Your task to perform on an android device: remove spam from my inbox in the gmail app Image 0: 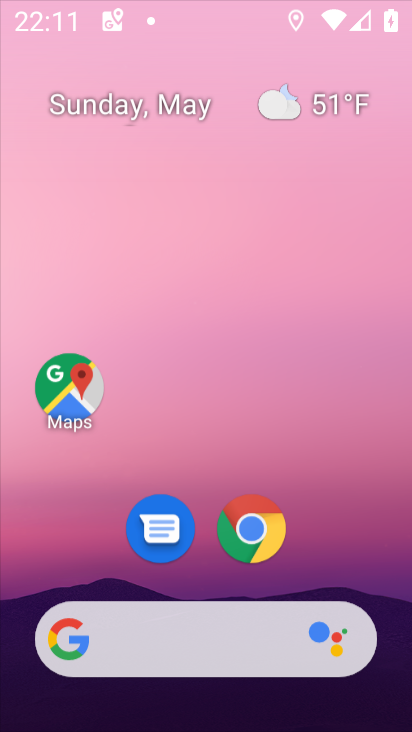
Step 0: click (272, 198)
Your task to perform on an android device: remove spam from my inbox in the gmail app Image 1: 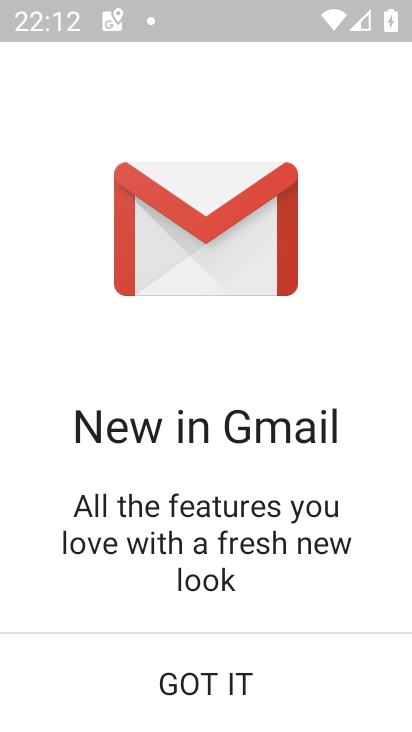
Step 1: click (207, 713)
Your task to perform on an android device: remove spam from my inbox in the gmail app Image 2: 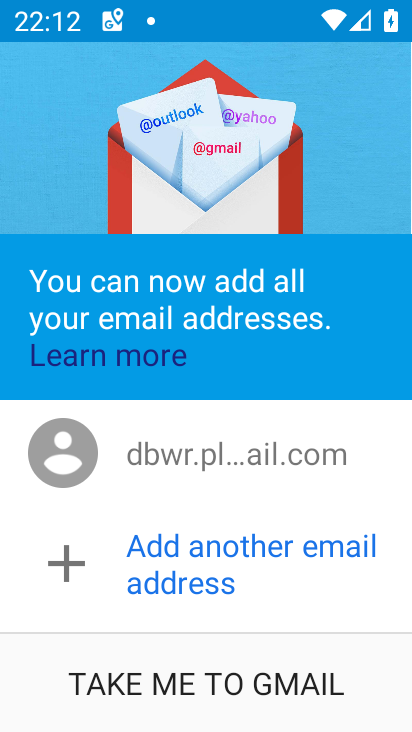
Step 2: click (238, 682)
Your task to perform on an android device: remove spam from my inbox in the gmail app Image 3: 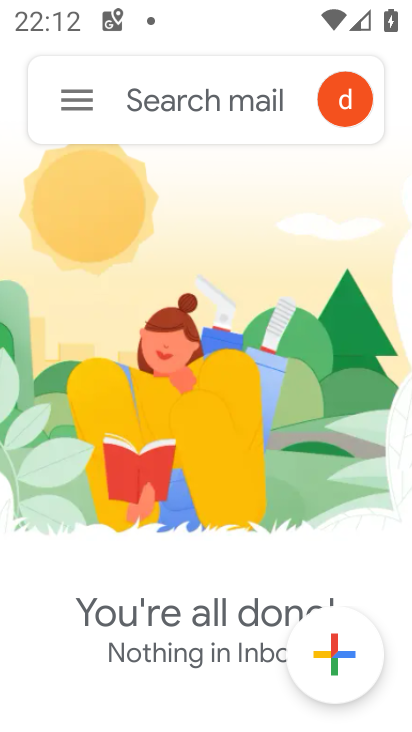
Step 3: click (93, 85)
Your task to perform on an android device: remove spam from my inbox in the gmail app Image 4: 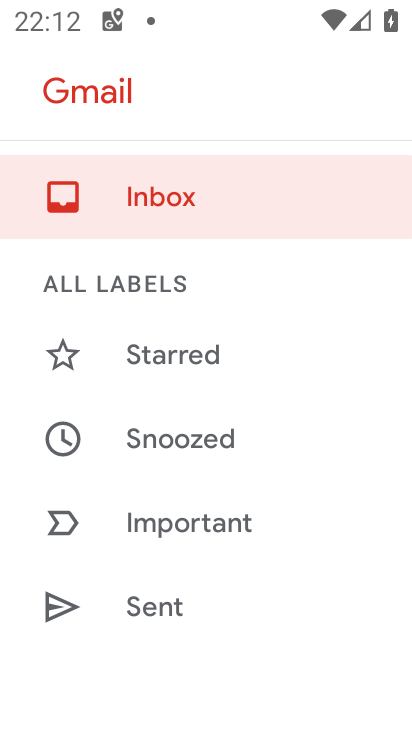
Step 4: drag from (142, 619) to (160, 211)
Your task to perform on an android device: remove spam from my inbox in the gmail app Image 5: 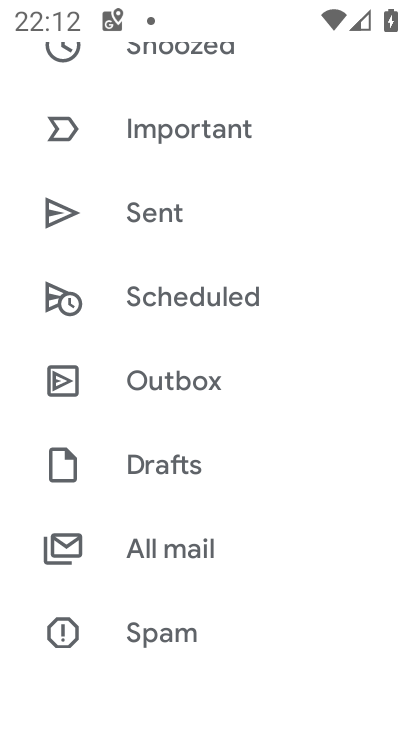
Step 5: click (183, 630)
Your task to perform on an android device: remove spam from my inbox in the gmail app Image 6: 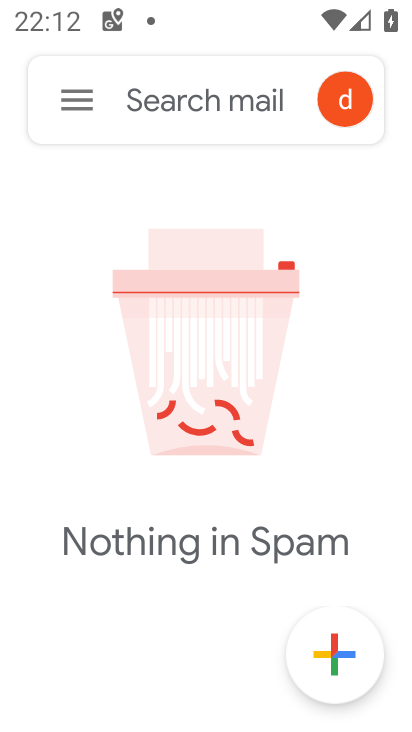
Step 6: task complete